Your task to perform on an android device: View the shopping cart on ebay.com. Add "logitech g933" to the cart on ebay.com Image 0: 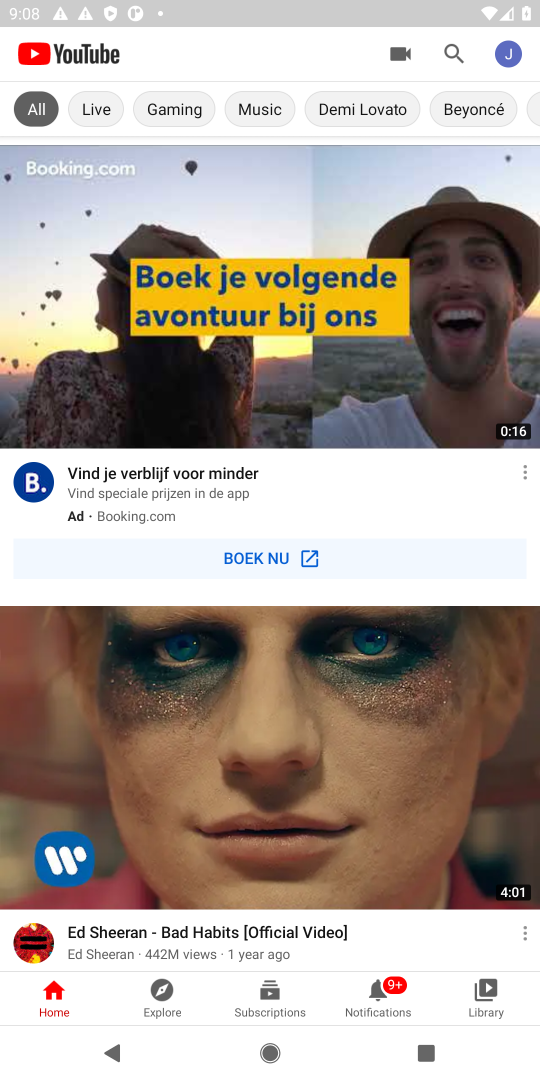
Step 0: press home button
Your task to perform on an android device: View the shopping cart on ebay.com. Add "logitech g933" to the cart on ebay.com Image 1: 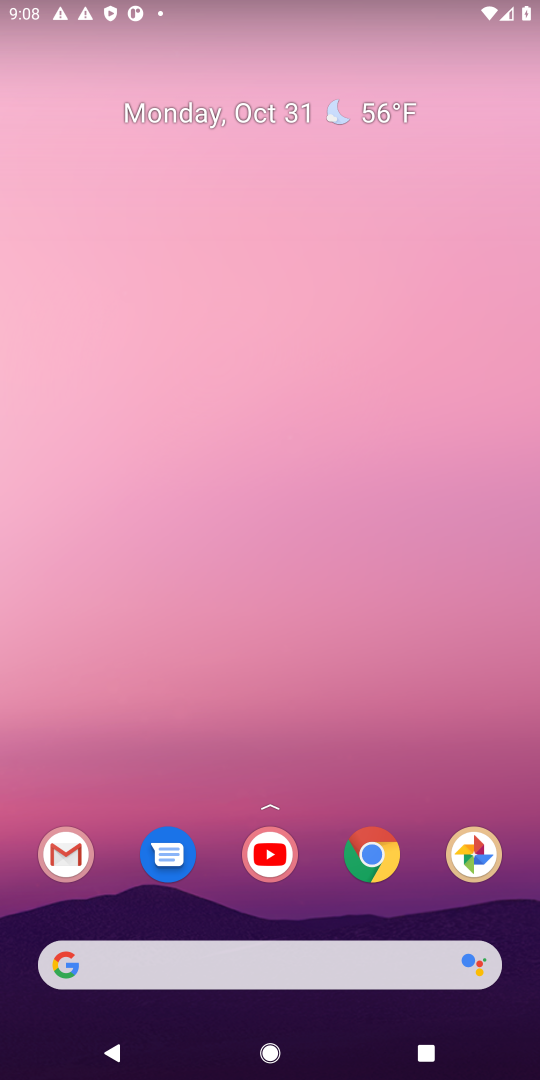
Step 1: click (217, 953)
Your task to perform on an android device: View the shopping cart on ebay.com. Add "logitech g933" to the cart on ebay.com Image 2: 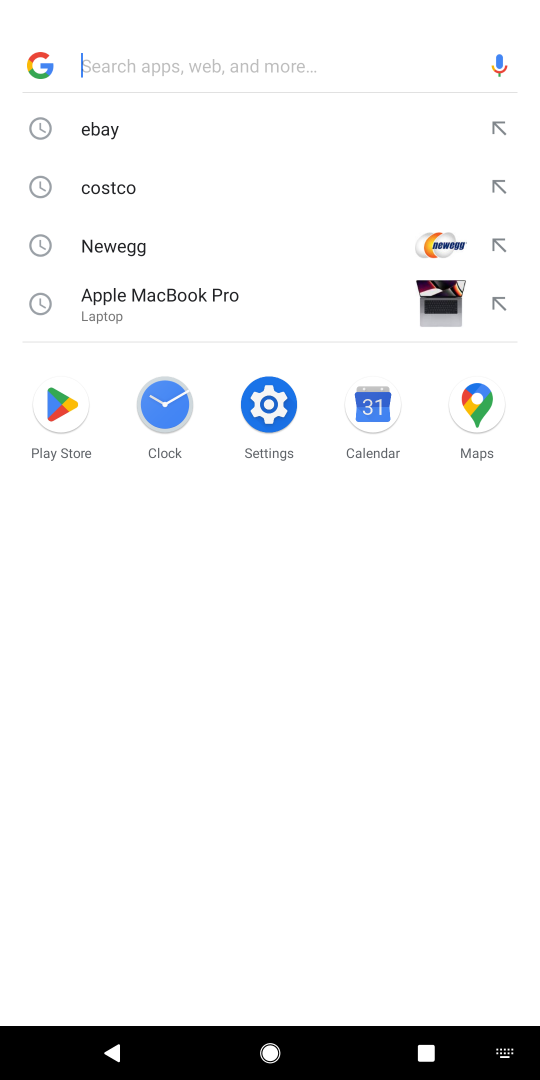
Step 2: type "logitech"
Your task to perform on an android device: View the shopping cart on ebay.com. Add "logitech g933" to the cart on ebay.com Image 3: 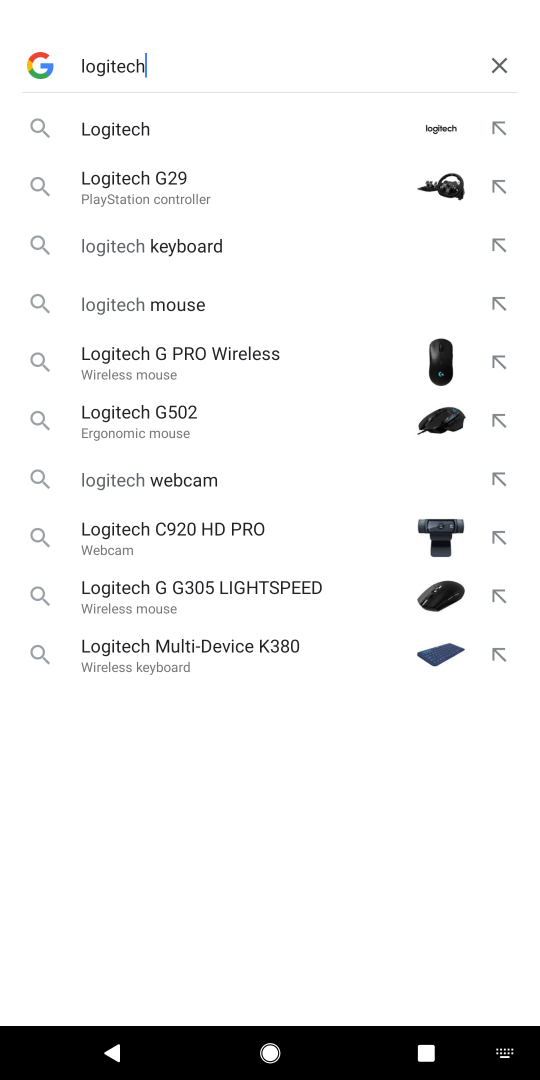
Step 3: click (124, 150)
Your task to perform on an android device: View the shopping cart on ebay.com. Add "logitech g933" to the cart on ebay.com Image 4: 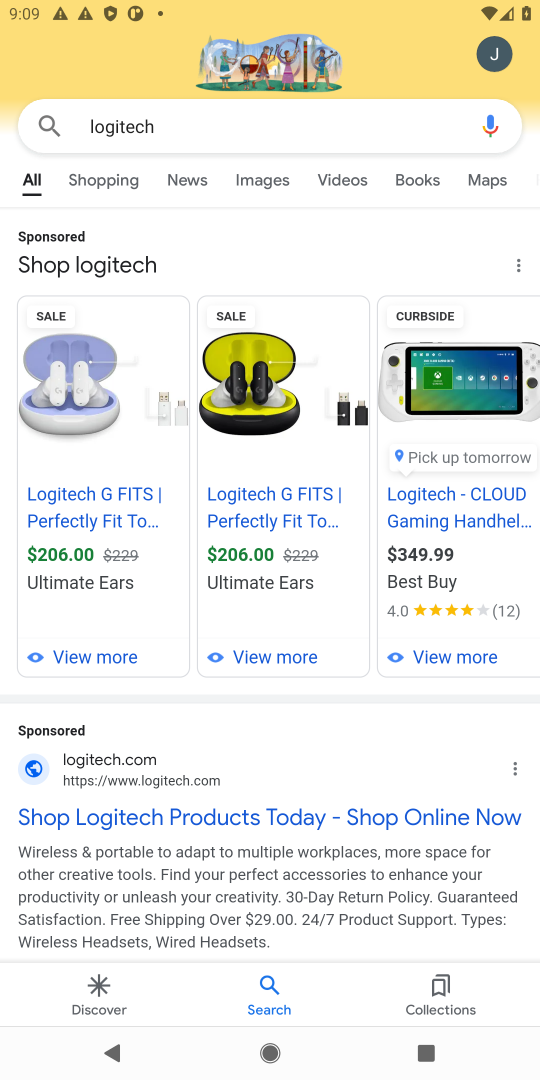
Step 4: task complete